Your task to perform on an android device: check storage Image 0: 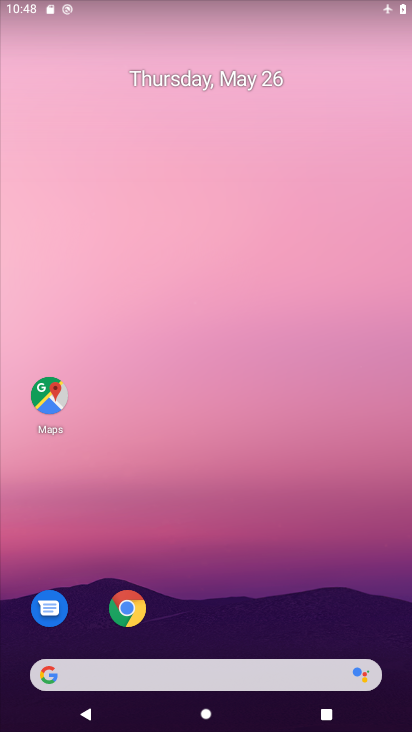
Step 0: drag from (395, 669) to (339, 200)
Your task to perform on an android device: check storage Image 1: 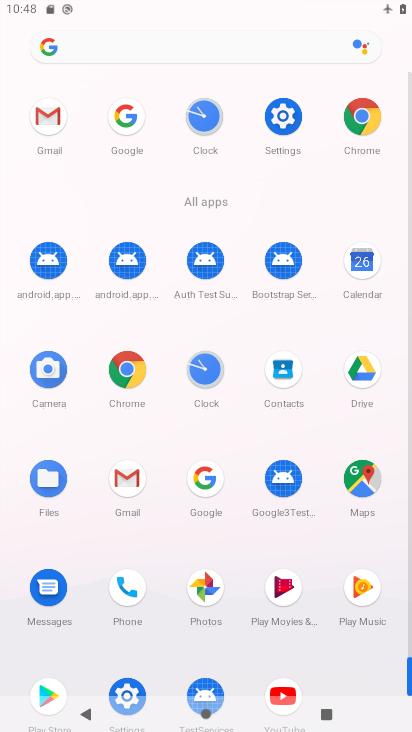
Step 1: click (277, 115)
Your task to perform on an android device: check storage Image 2: 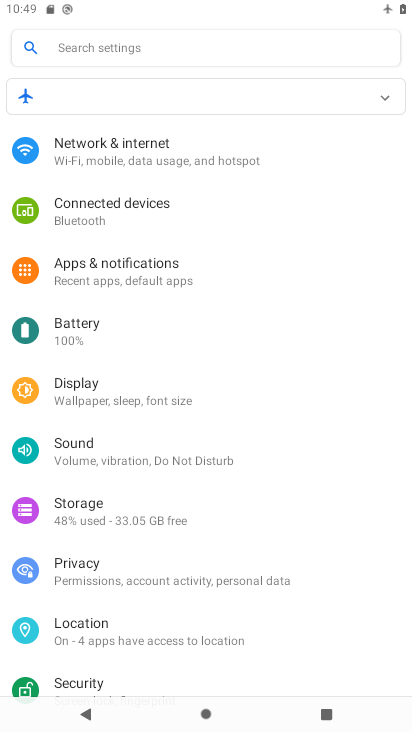
Step 2: click (89, 517)
Your task to perform on an android device: check storage Image 3: 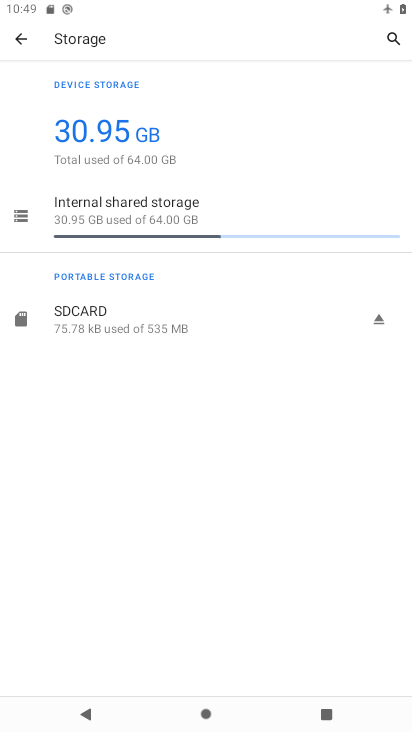
Step 3: task complete